Your task to perform on an android device: Turn off the flashlight Image 0: 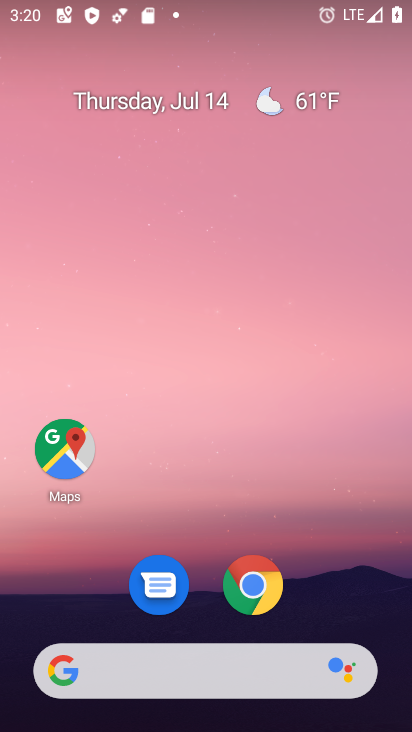
Step 0: drag from (353, 531) to (275, 12)
Your task to perform on an android device: Turn off the flashlight Image 1: 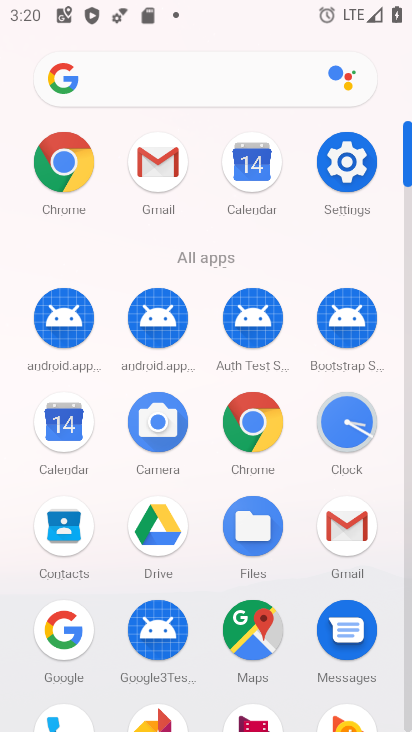
Step 1: click (341, 171)
Your task to perform on an android device: Turn off the flashlight Image 2: 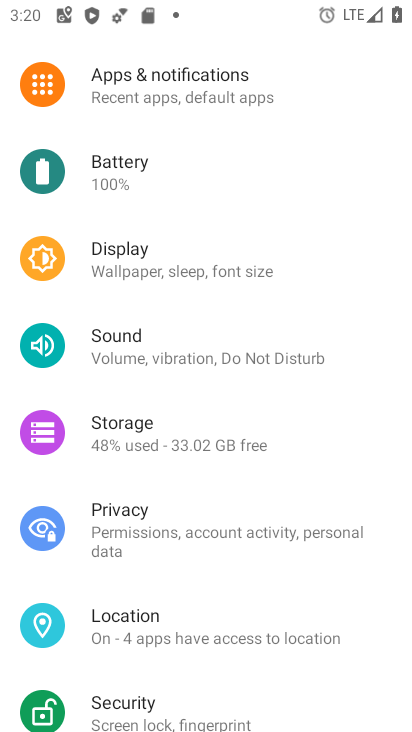
Step 2: drag from (218, 229) to (234, 570)
Your task to perform on an android device: Turn off the flashlight Image 3: 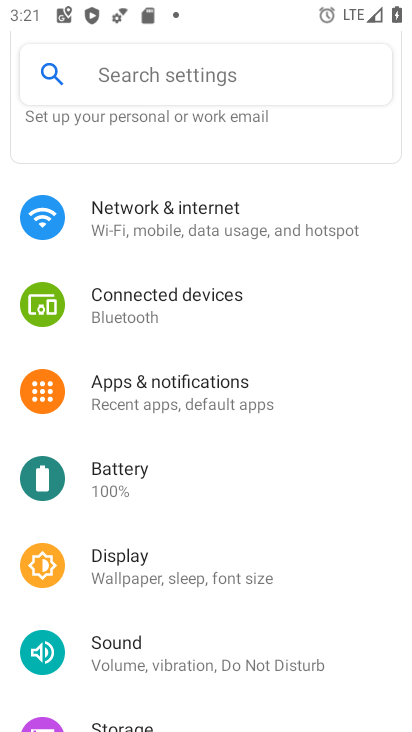
Step 3: drag from (211, 265) to (229, 587)
Your task to perform on an android device: Turn off the flashlight Image 4: 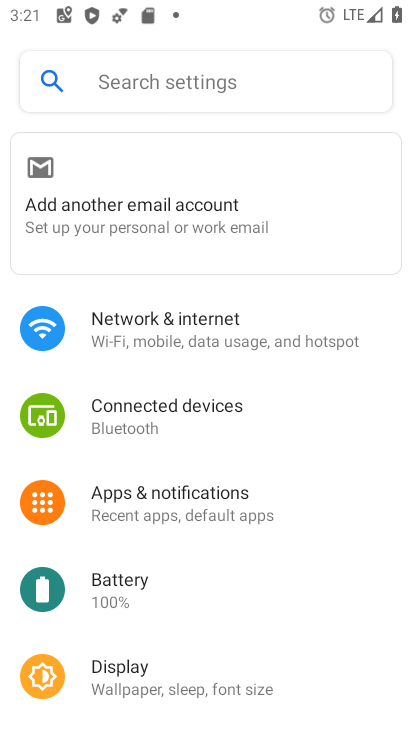
Step 4: click (257, 85)
Your task to perform on an android device: Turn off the flashlight Image 5: 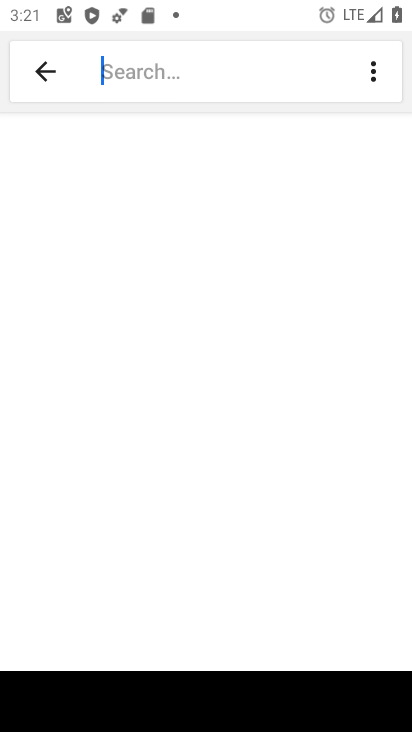
Step 5: type "Flashlight"
Your task to perform on an android device: Turn off the flashlight Image 6: 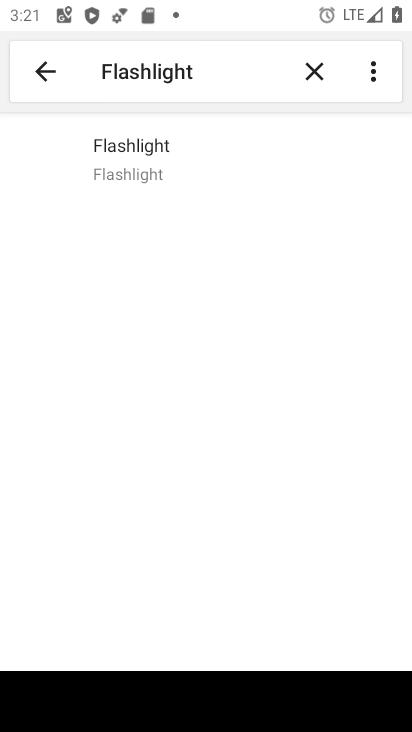
Step 6: click (157, 144)
Your task to perform on an android device: Turn off the flashlight Image 7: 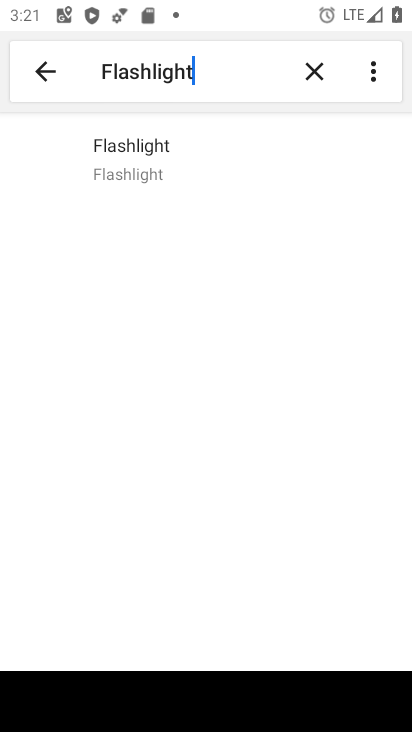
Step 7: click (142, 155)
Your task to perform on an android device: Turn off the flashlight Image 8: 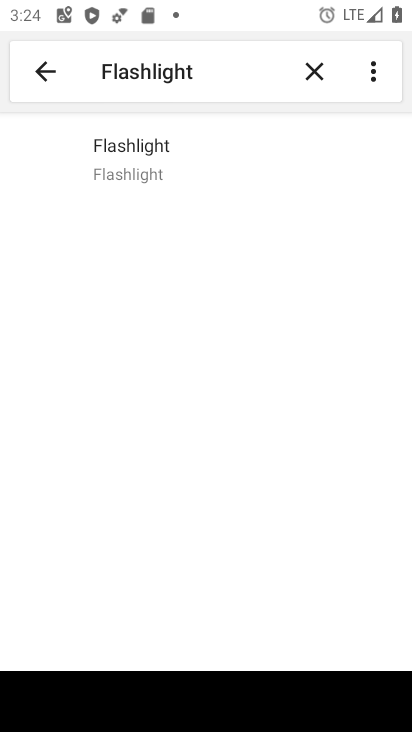
Step 8: task complete